Your task to perform on an android device: all mails in gmail Image 0: 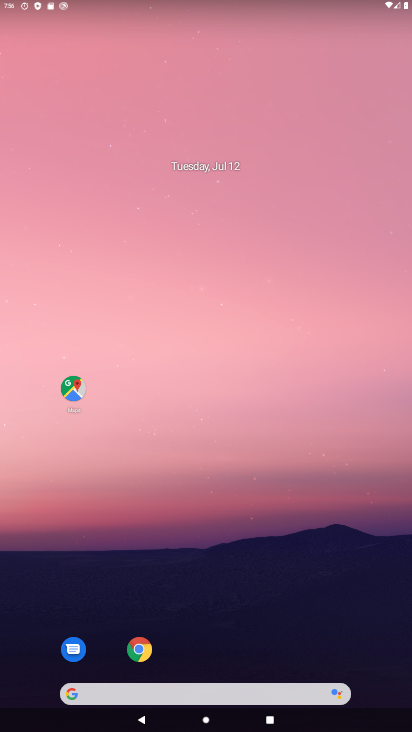
Step 0: drag from (378, 641) to (208, 175)
Your task to perform on an android device: all mails in gmail Image 1: 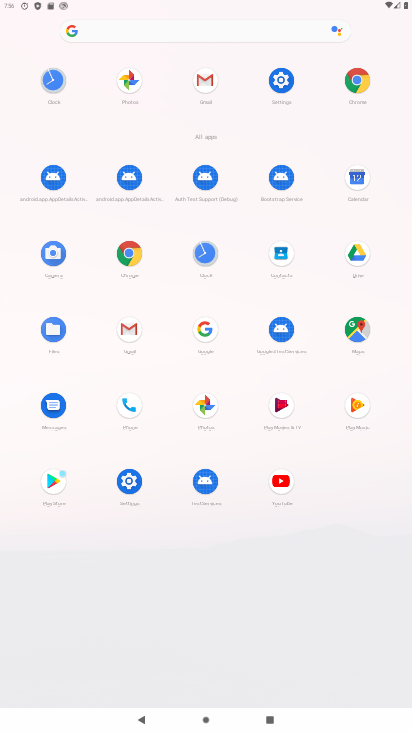
Step 1: click (213, 77)
Your task to perform on an android device: all mails in gmail Image 2: 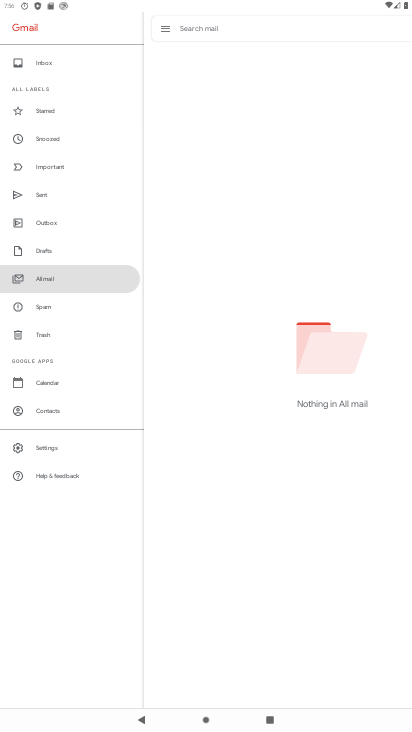
Step 2: task complete